Your task to perform on an android device: Go to display settings Image 0: 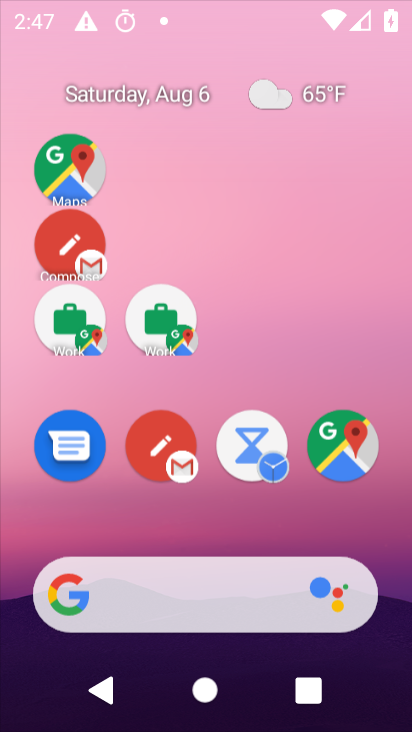
Step 0: drag from (271, 602) to (150, 197)
Your task to perform on an android device: Go to display settings Image 1: 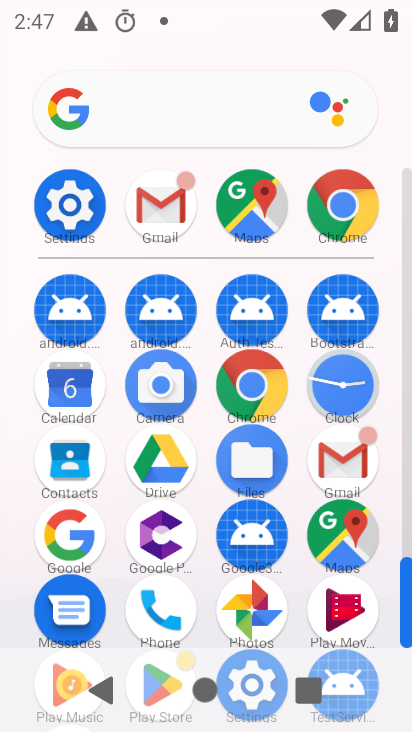
Step 1: click (71, 204)
Your task to perform on an android device: Go to display settings Image 2: 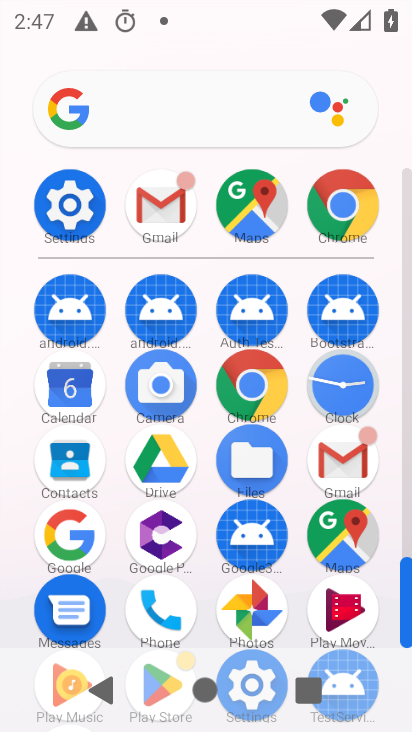
Step 2: click (71, 207)
Your task to perform on an android device: Go to display settings Image 3: 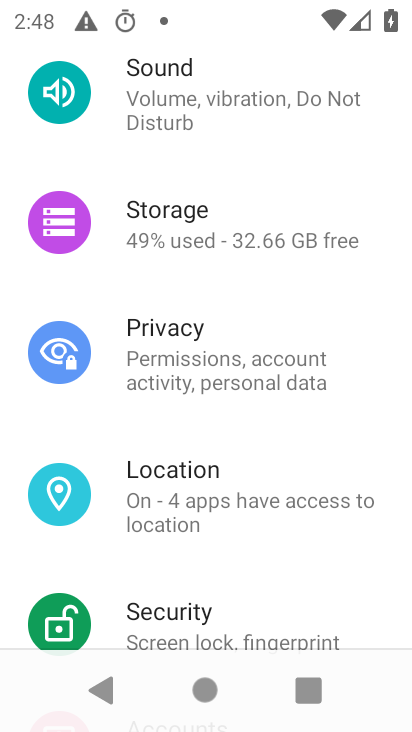
Step 3: click (230, 308)
Your task to perform on an android device: Go to display settings Image 4: 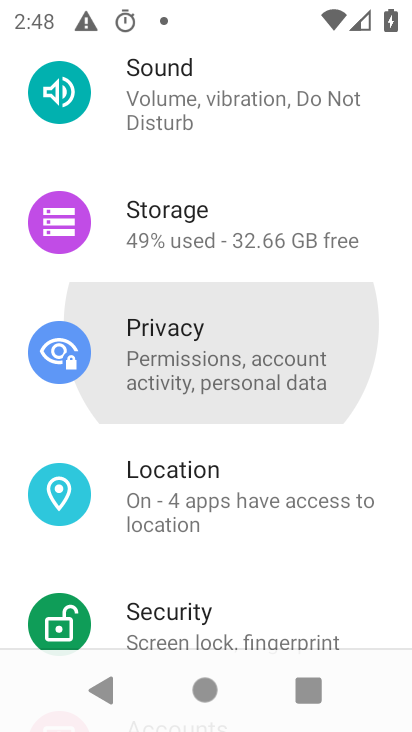
Step 4: drag from (169, 114) to (204, 376)
Your task to perform on an android device: Go to display settings Image 5: 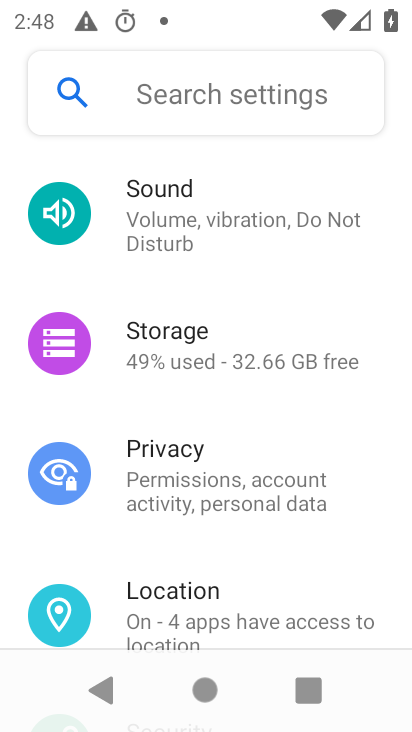
Step 5: drag from (229, 275) to (202, 129)
Your task to perform on an android device: Go to display settings Image 6: 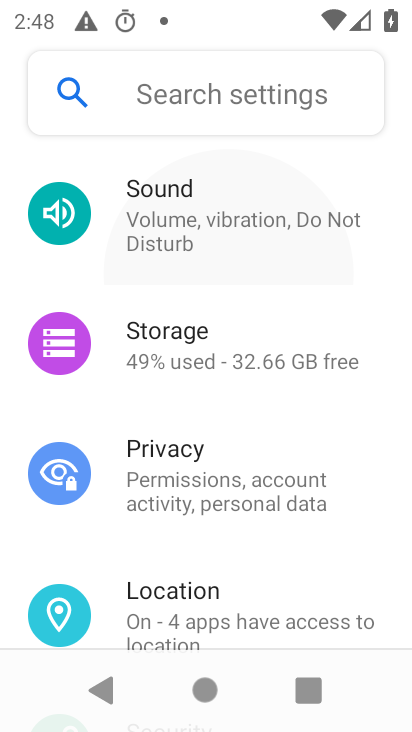
Step 6: drag from (243, 486) to (222, 187)
Your task to perform on an android device: Go to display settings Image 7: 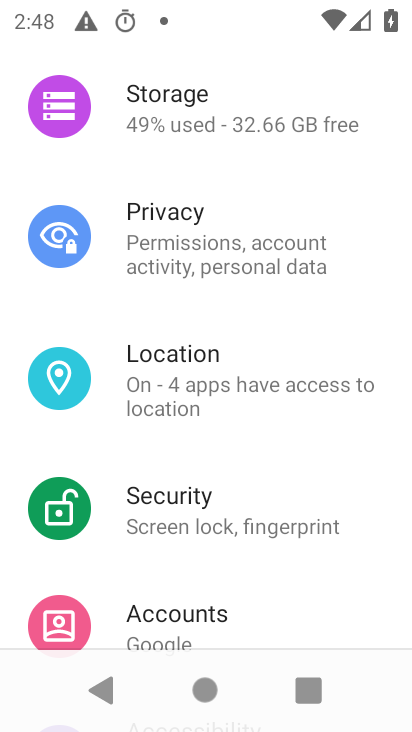
Step 7: drag from (197, 415) to (189, 340)
Your task to perform on an android device: Go to display settings Image 8: 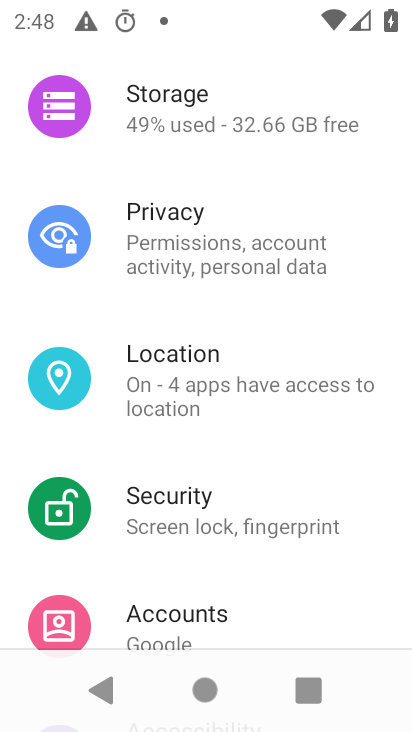
Step 8: drag from (207, 594) to (224, 367)
Your task to perform on an android device: Go to display settings Image 9: 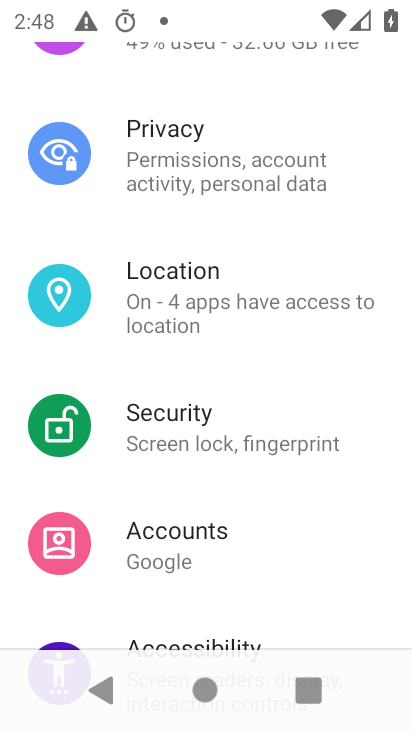
Step 9: drag from (203, 503) to (208, 351)
Your task to perform on an android device: Go to display settings Image 10: 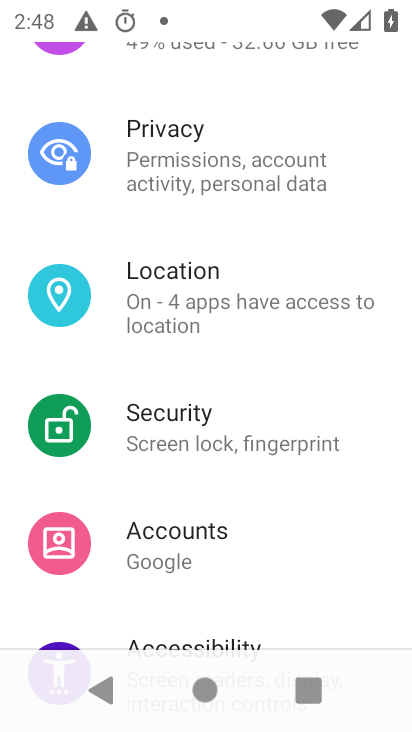
Step 10: drag from (211, 550) to (214, 158)
Your task to perform on an android device: Go to display settings Image 11: 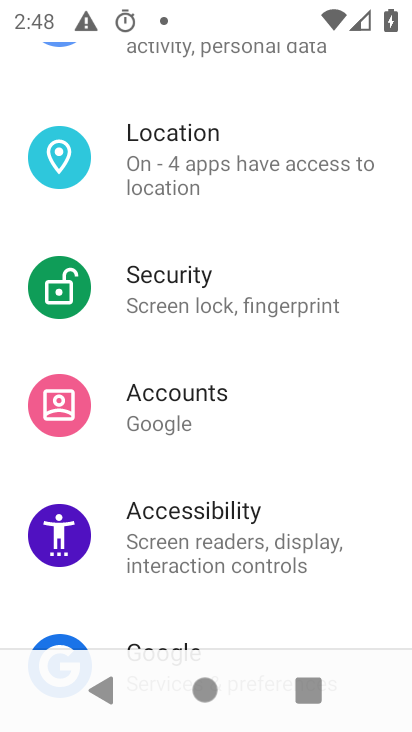
Step 11: drag from (261, 321) to (275, 178)
Your task to perform on an android device: Go to display settings Image 12: 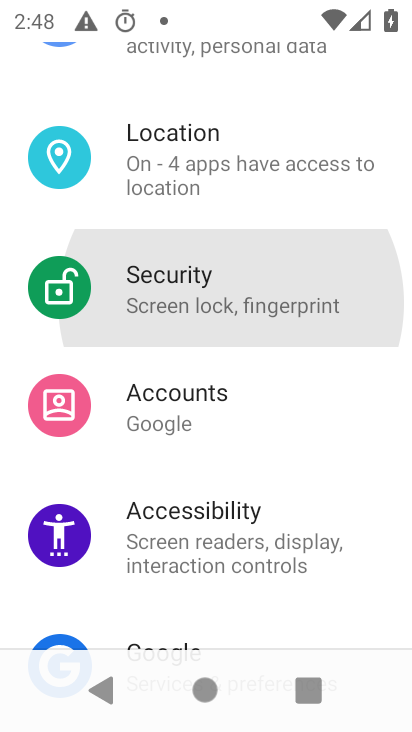
Step 12: drag from (200, 458) to (159, 201)
Your task to perform on an android device: Go to display settings Image 13: 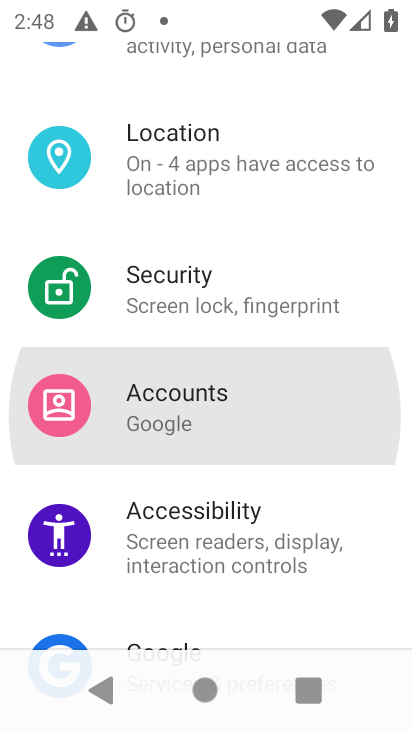
Step 13: drag from (171, 411) to (162, 217)
Your task to perform on an android device: Go to display settings Image 14: 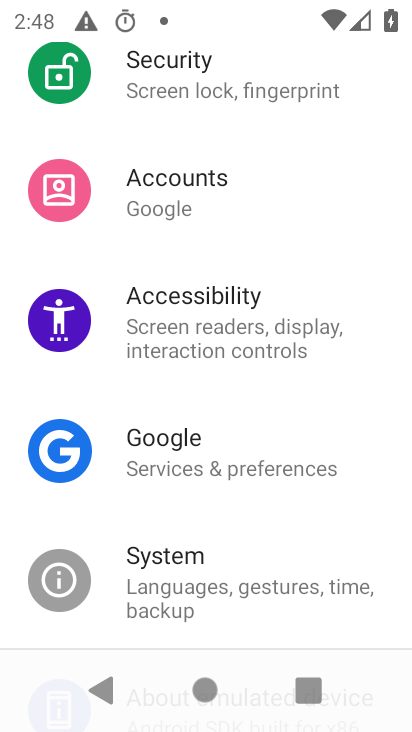
Step 14: drag from (199, 477) to (183, 51)
Your task to perform on an android device: Go to display settings Image 15: 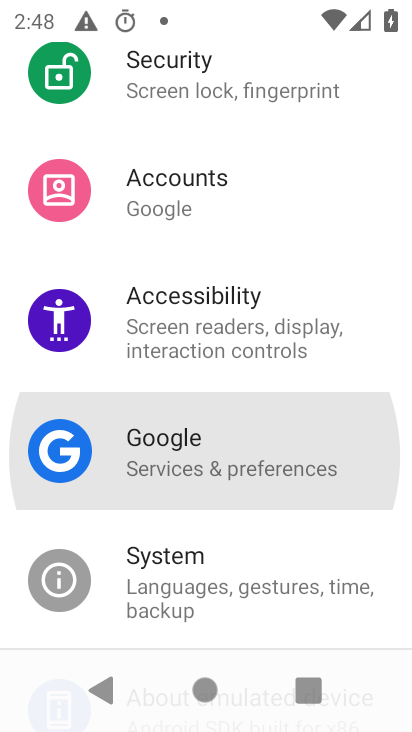
Step 15: drag from (227, 276) to (222, 139)
Your task to perform on an android device: Go to display settings Image 16: 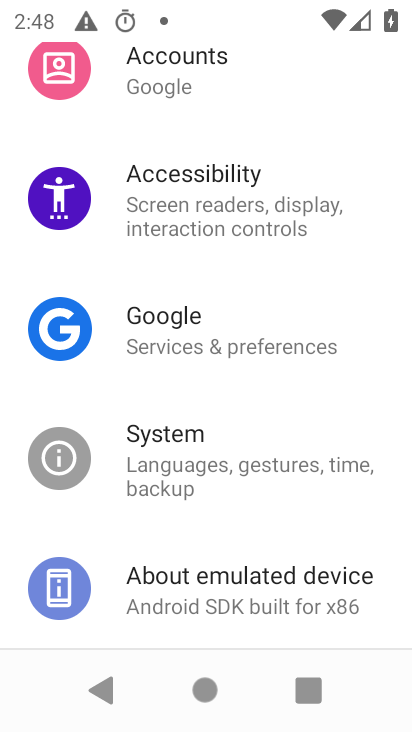
Step 16: drag from (158, 190) to (249, 547)
Your task to perform on an android device: Go to display settings Image 17: 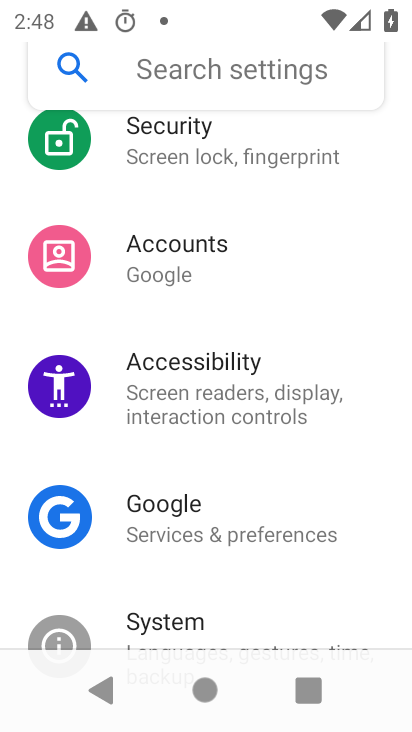
Step 17: drag from (205, 279) to (251, 589)
Your task to perform on an android device: Go to display settings Image 18: 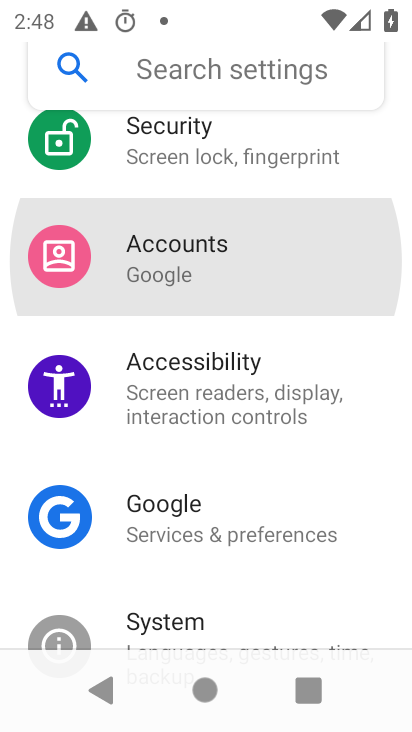
Step 18: drag from (204, 237) to (224, 424)
Your task to perform on an android device: Go to display settings Image 19: 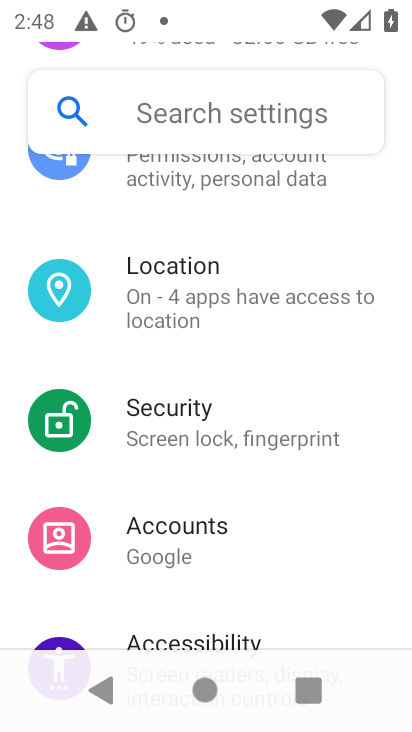
Step 19: drag from (188, 218) to (235, 565)
Your task to perform on an android device: Go to display settings Image 20: 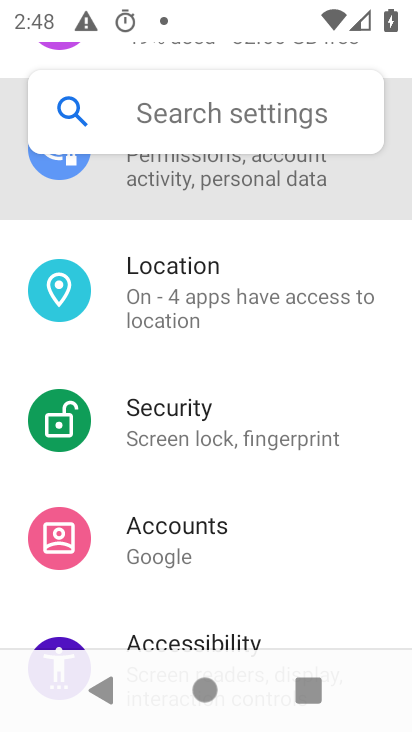
Step 20: drag from (193, 361) to (208, 467)
Your task to perform on an android device: Go to display settings Image 21: 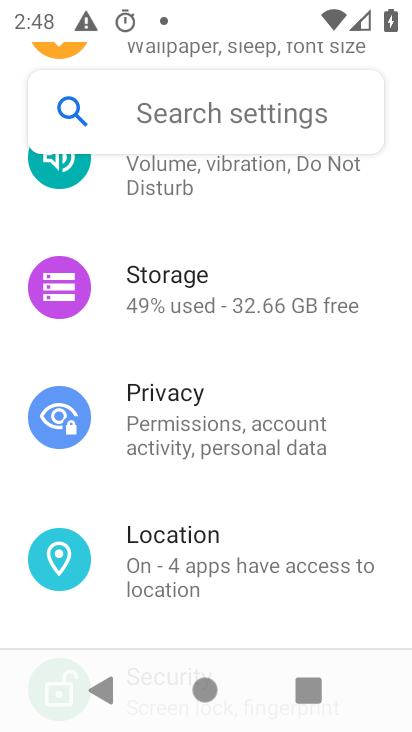
Step 21: click (233, 569)
Your task to perform on an android device: Go to display settings Image 22: 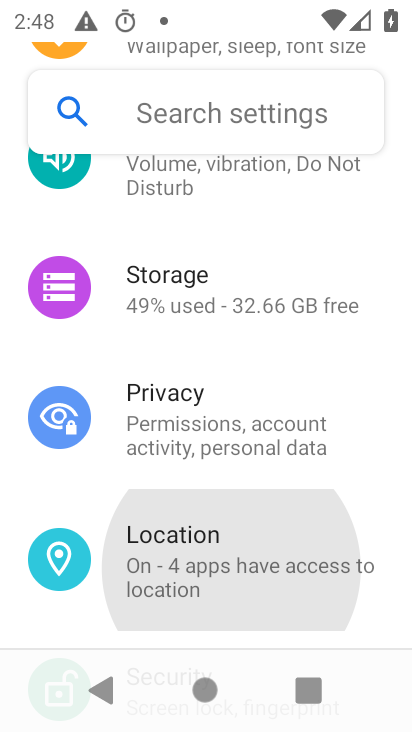
Step 22: drag from (189, 269) to (239, 547)
Your task to perform on an android device: Go to display settings Image 23: 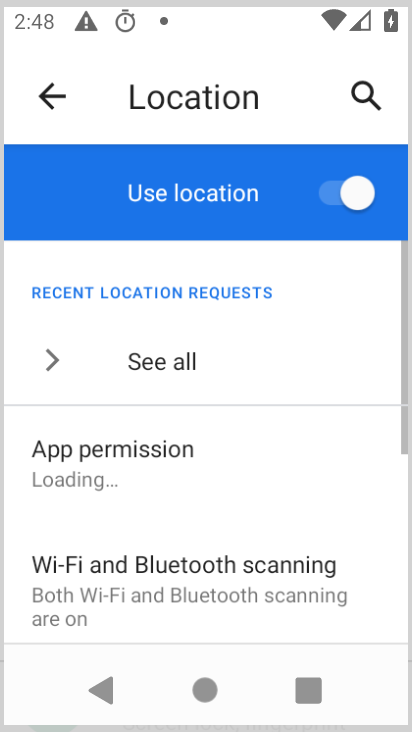
Step 23: click (200, 600)
Your task to perform on an android device: Go to display settings Image 24: 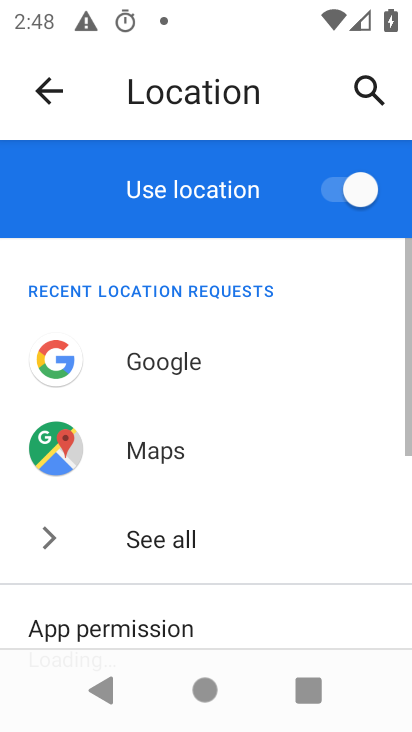
Step 24: drag from (168, 381) to (219, 617)
Your task to perform on an android device: Go to display settings Image 25: 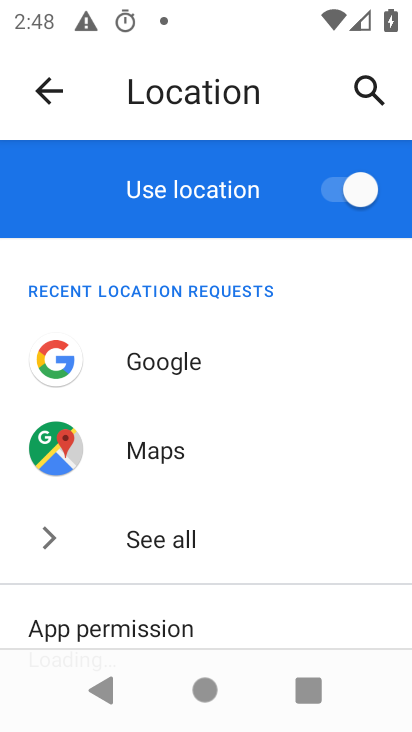
Step 25: click (52, 79)
Your task to perform on an android device: Go to display settings Image 26: 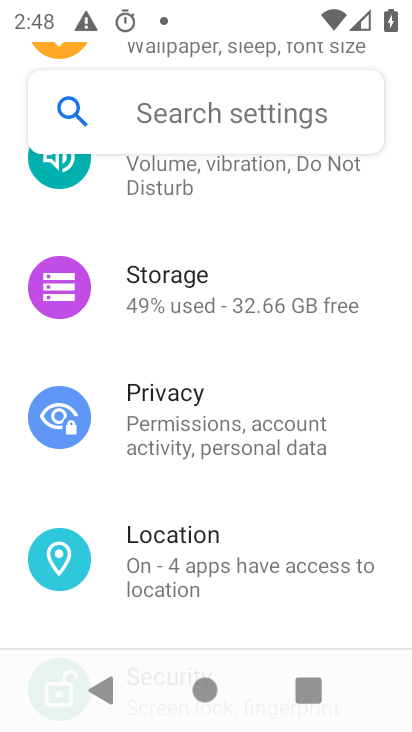
Step 26: drag from (185, 262) to (216, 581)
Your task to perform on an android device: Go to display settings Image 27: 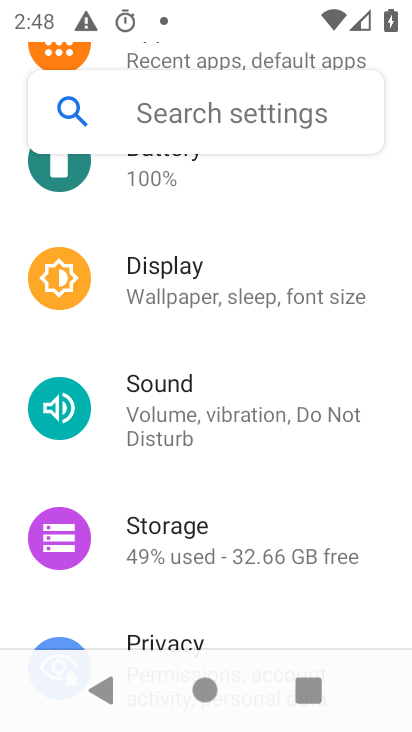
Step 27: click (163, 290)
Your task to perform on an android device: Go to display settings Image 28: 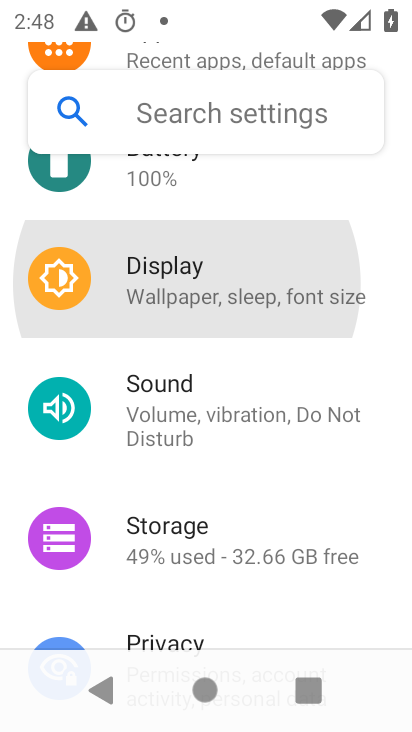
Step 28: click (163, 286)
Your task to perform on an android device: Go to display settings Image 29: 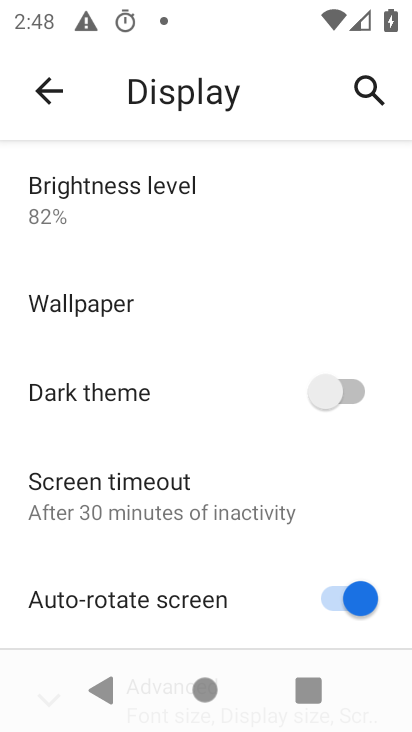
Step 29: task complete